Your task to perform on an android device: Do I have any events tomorrow? Image 0: 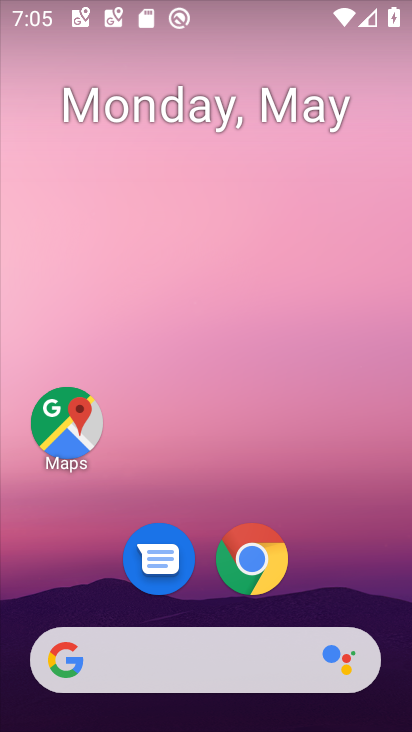
Step 0: drag from (387, 615) to (411, 301)
Your task to perform on an android device: Do I have any events tomorrow? Image 1: 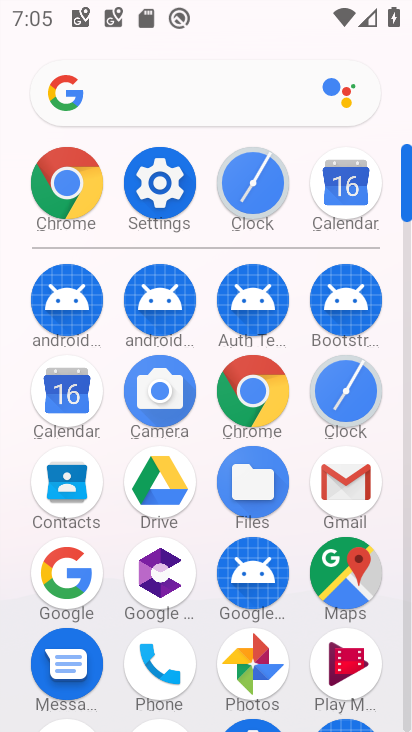
Step 1: click (66, 425)
Your task to perform on an android device: Do I have any events tomorrow? Image 2: 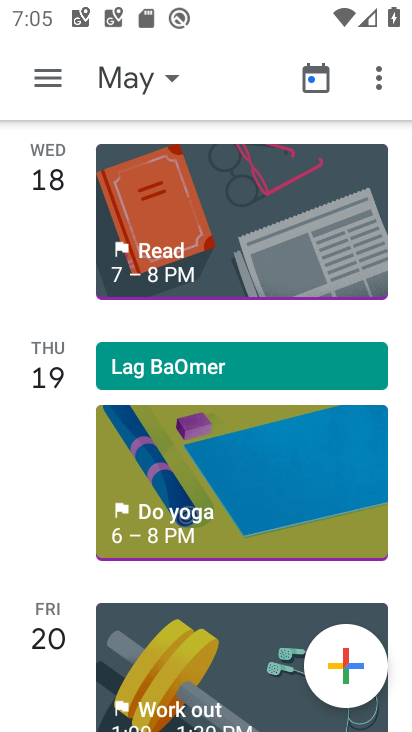
Step 2: task complete